Your task to perform on an android device: Clear all items from cart on costco. Image 0: 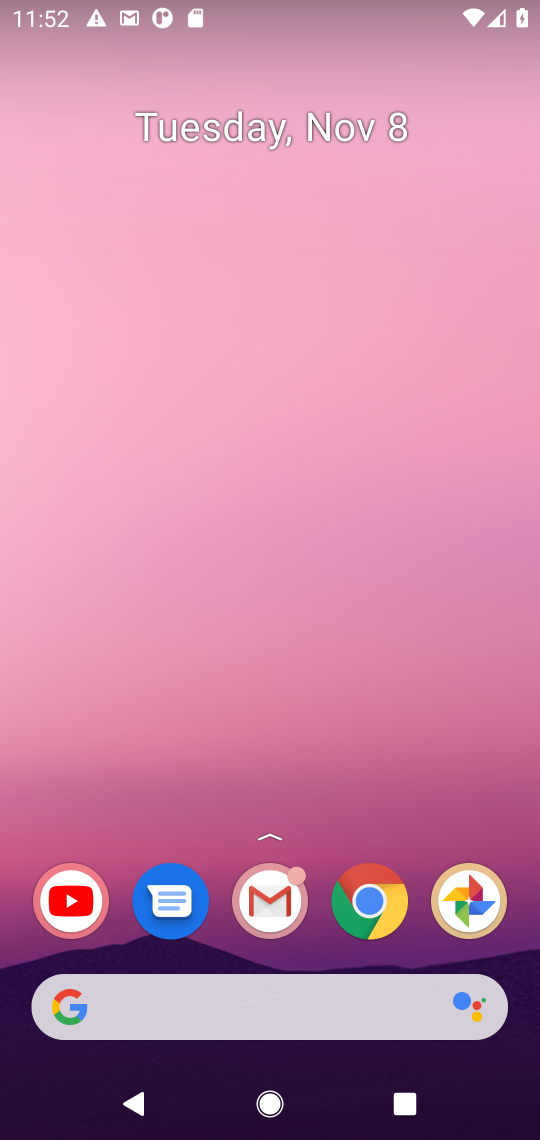
Step 0: click (387, 915)
Your task to perform on an android device: Clear all items from cart on costco. Image 1: 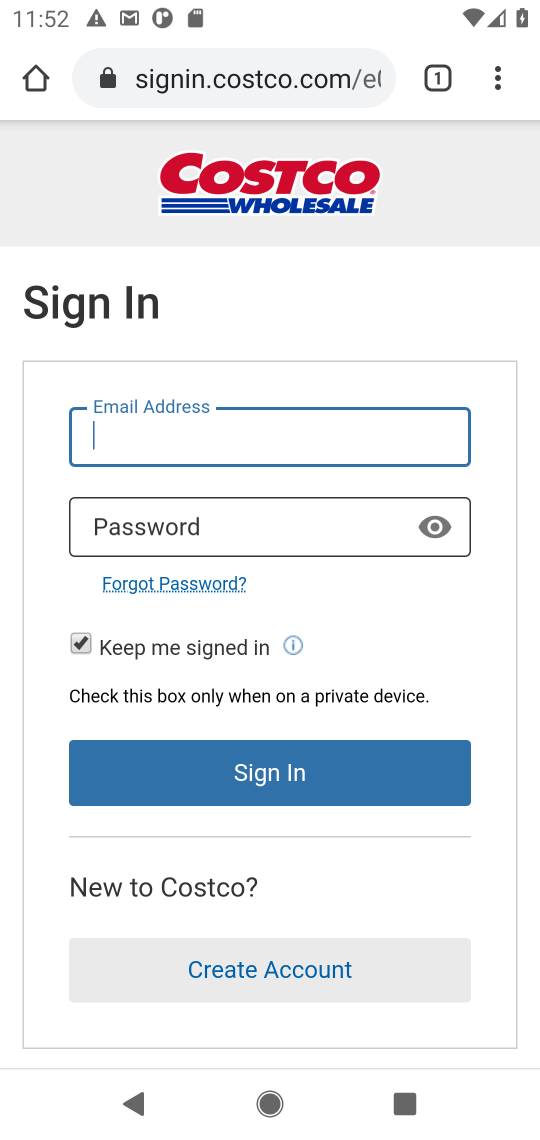
Step 1: press back button
Your task to perform on an android device: Clear all items from cart on costco. Image 2: 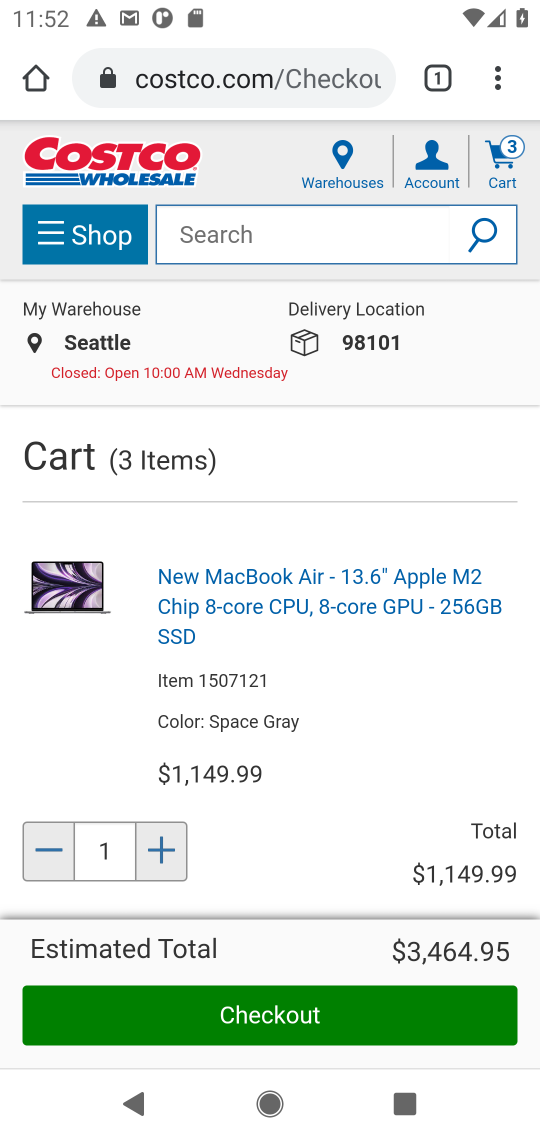
Step 2: click (516, 169)
Your task to perform on an android device: Clear all items from cart on costco. Image 3: 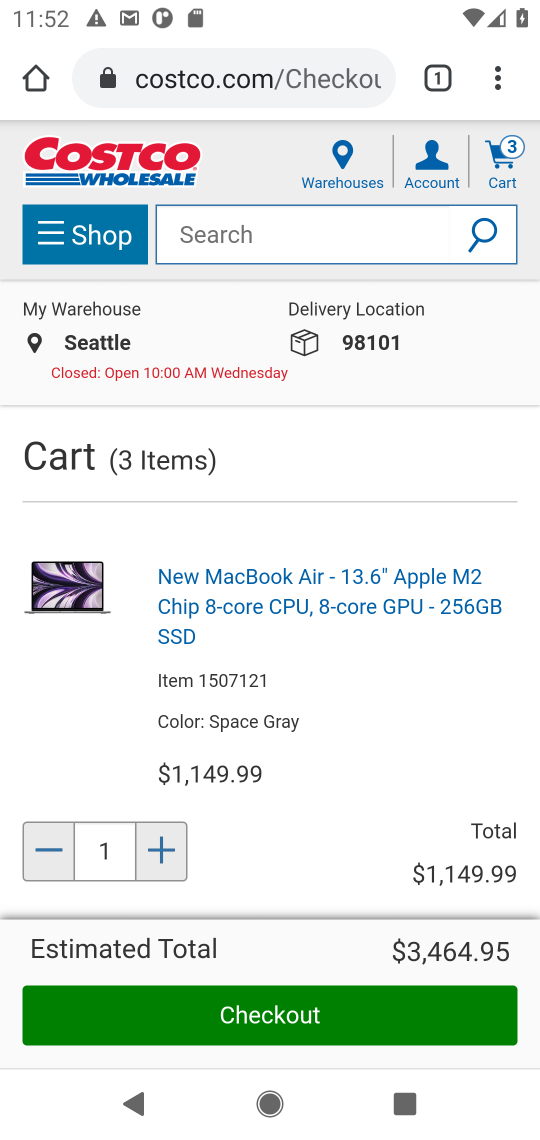
Step 3: drag from (357, 778) to (334, 356)
Your task to perform on an android device: Clear all items from cart on costco. Image 4: 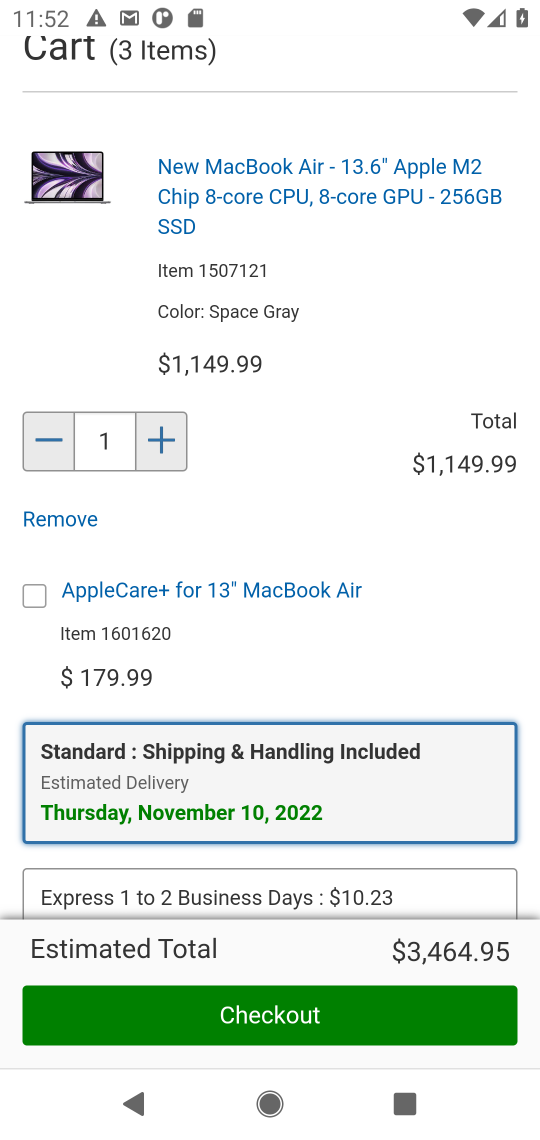
Step 4: drag from (393, 667) to (369, 439)
Your task to perform on an android device: Clear all items from cart on costco. Image 5: 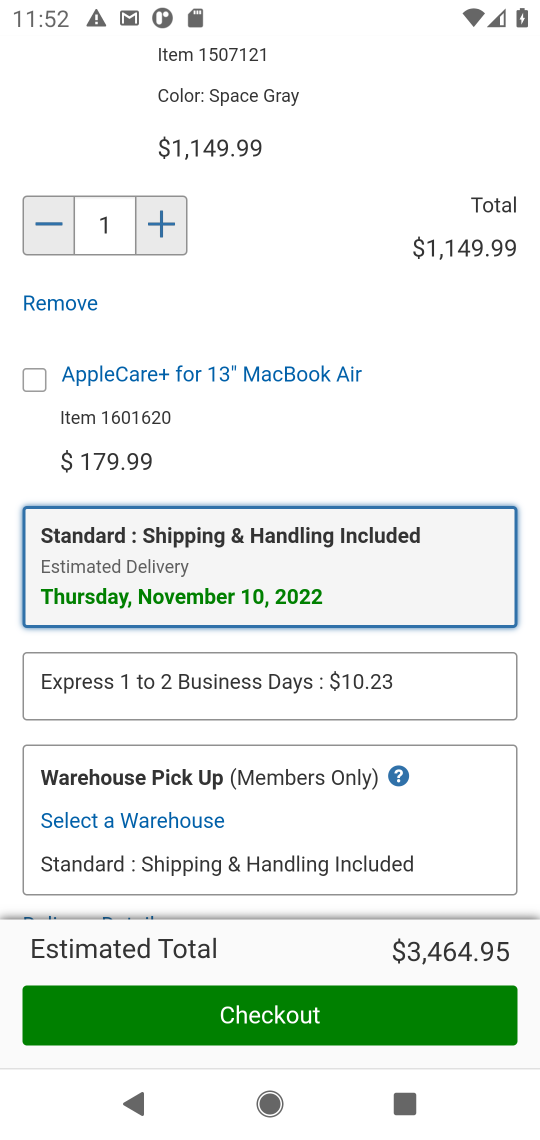
Step 5: click (55, 300)
Your task to perform on an android device: Clear all items from cart on costco. Image 6: 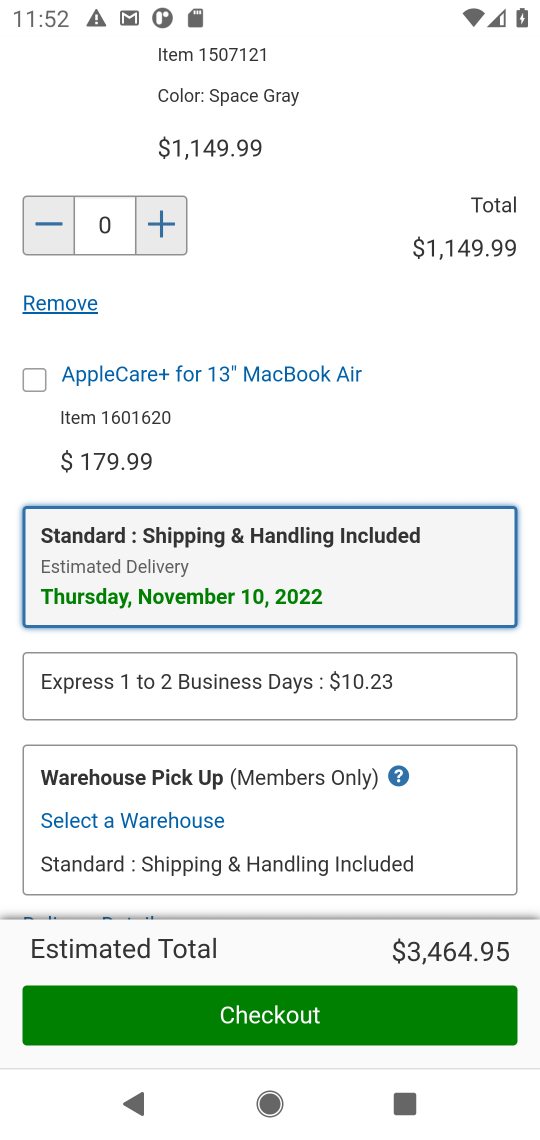
Step 6: drag from (365, 950) to (351, 307)
Your task to perform on an android device: Clear all items from cart on costco. Image 7: 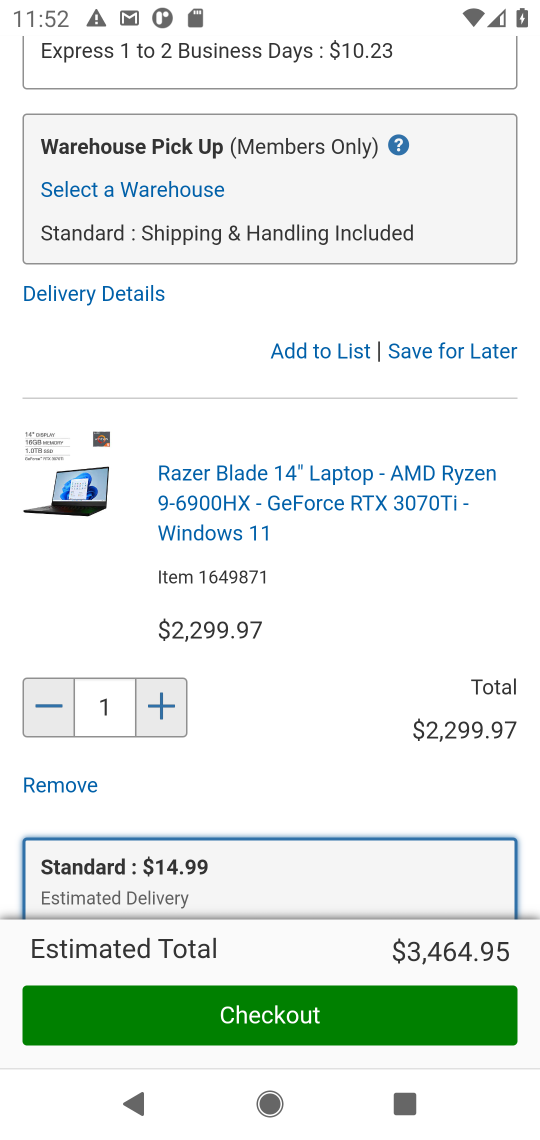
Step 7: click (47, 778)
Your task to perform on an android device: Clear all items from cart on costco. Image 8: 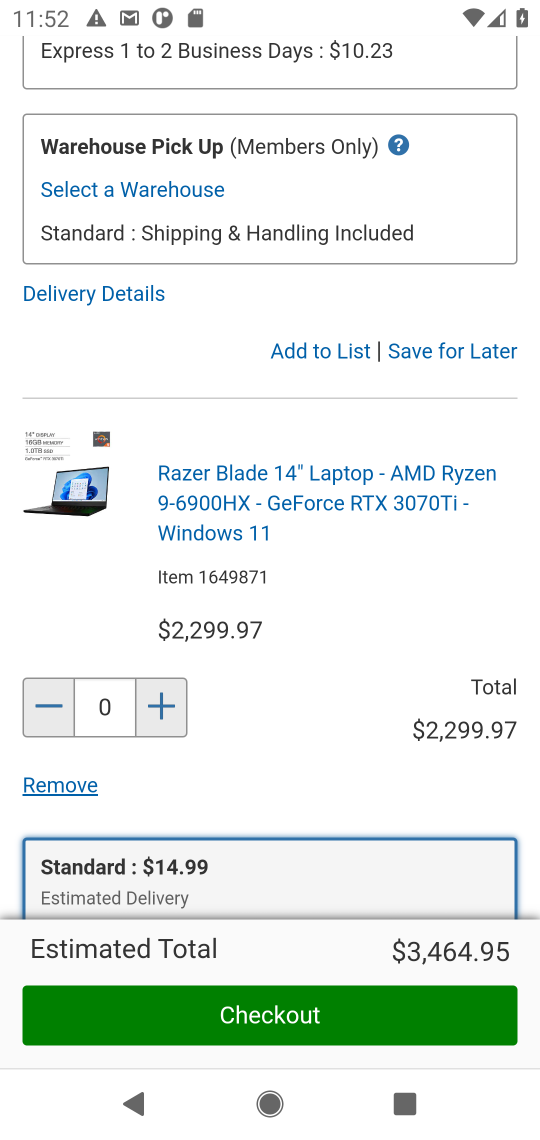
Step 8: task complete